Your task to perform on an android device: open sync settings in chrome Image 0: 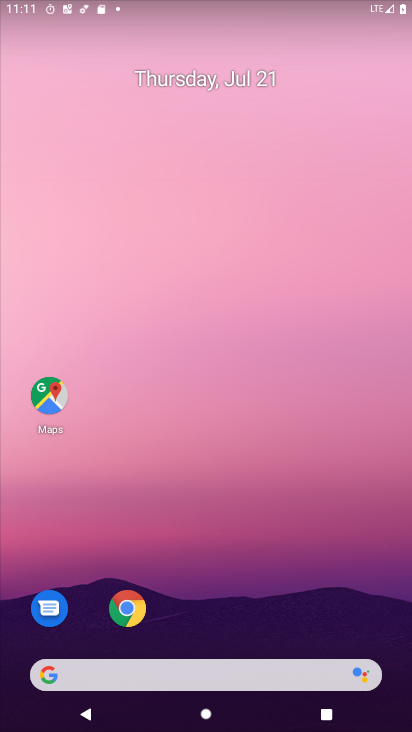
Step 0: drag from (222, 596) to (227, 279)
Your task to perform on an android device: open sync settings in chrome Image 1: 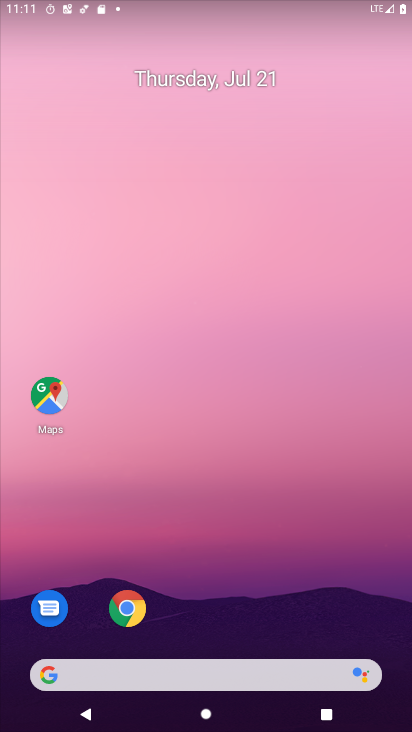
Step 1: drag from (164, 668) to (228, 129)
Your task to perform on an android device: open sync settings in chrome Image 2: 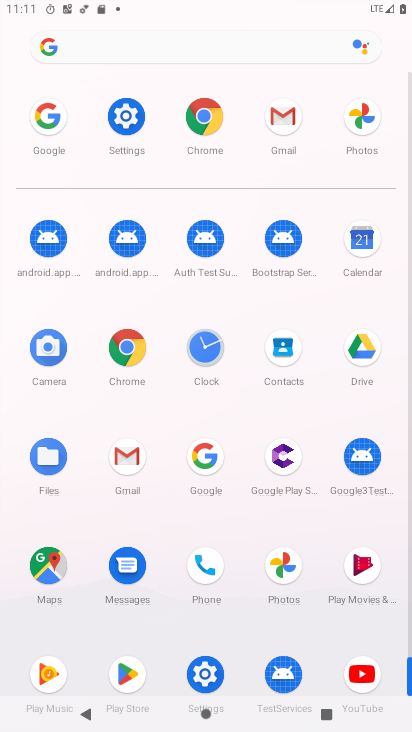
Step 2: click (211, 132)
Your task to perform on an android device: open sync settings in chrome Image 3: 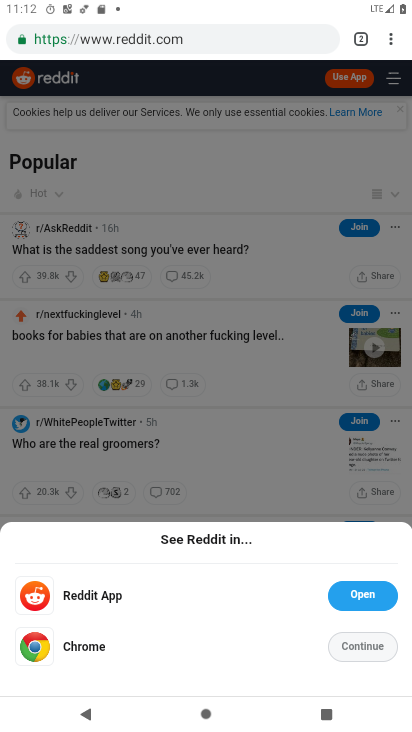
Step 3: click (391, 48)
Your task to perform on an android device: open sync settings in chrome Image 4: 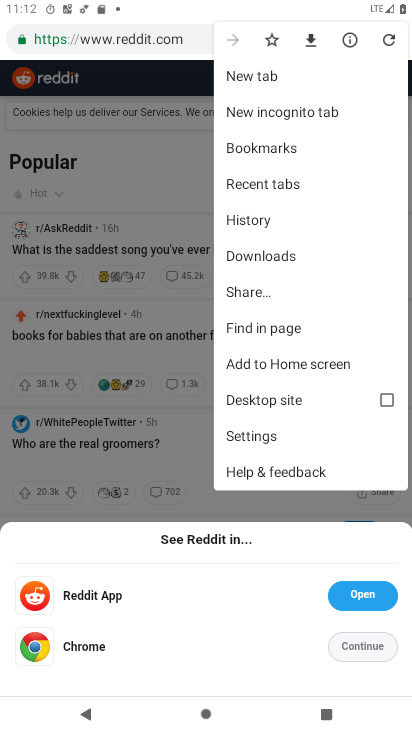
Step 4: click (257, 440)
Your task to perform on an android device: open sync settings in chrome Image 5: 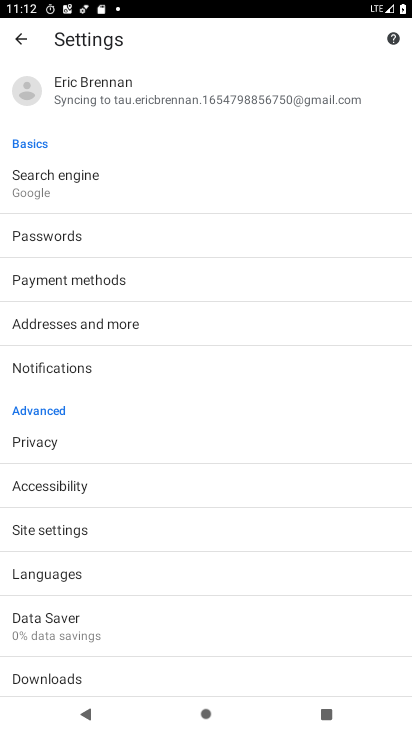
Step 5: click (174, 102)
Your task to perform on an android device: open sync settings in chrome Image 6: 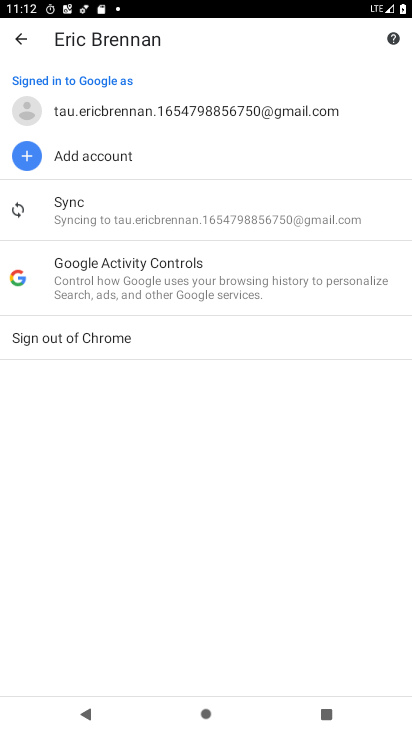
Step 6: click (138, 204)
Your task to perform on an android device: open sync settings in chrome Image 7: 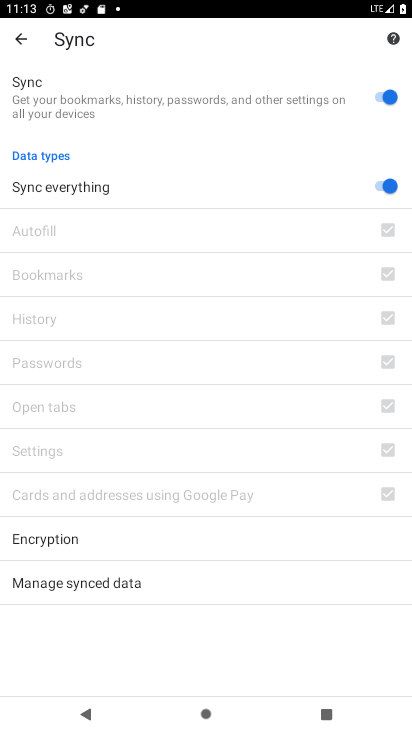
Step 7: task complete